Your task to perform on an android device: Is it going to rain tomorrow? Image 0: 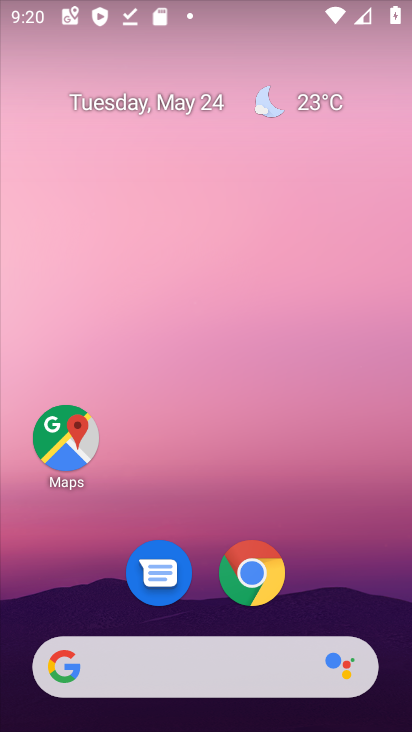
Step 0: drag from (397, 468) to (400, 549)
Your task to perform on an android device: Is it going to rain tomorrow? Image 1: 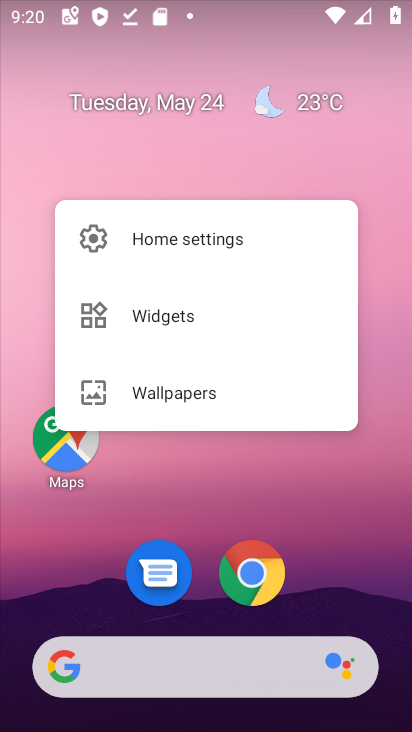
Step 1: press back button
Your task to perform on an android device: Is it going to rain tomorrow? Image 2: 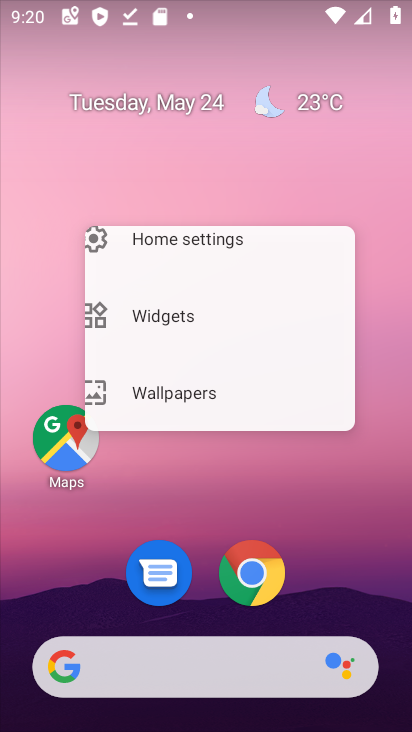
Step 2: press back button
Your task to perform on an android device: Is it going to rain tomorrow? Image 3: 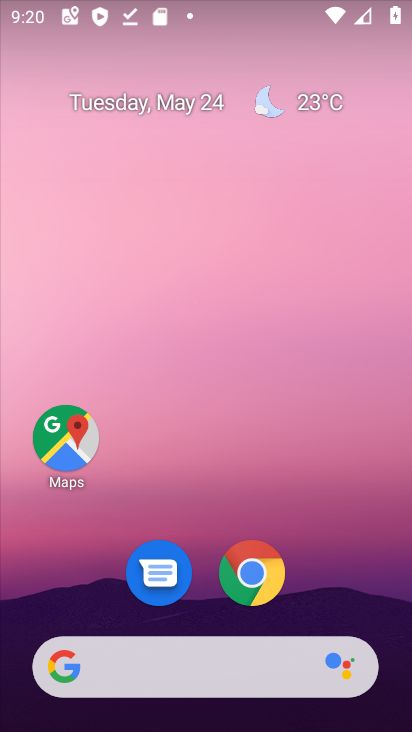
Step 3: press back button
Your task to perform on an android device: Is it going to rain tomorrow? Image 4: 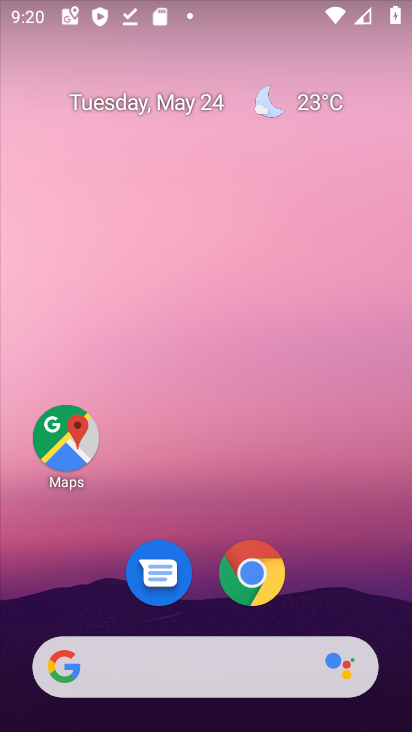
Step 4: drag from (7, 234) to (400, 481)
Your task to perform on an android device: Is it going to rain tomorrow? Image 5: 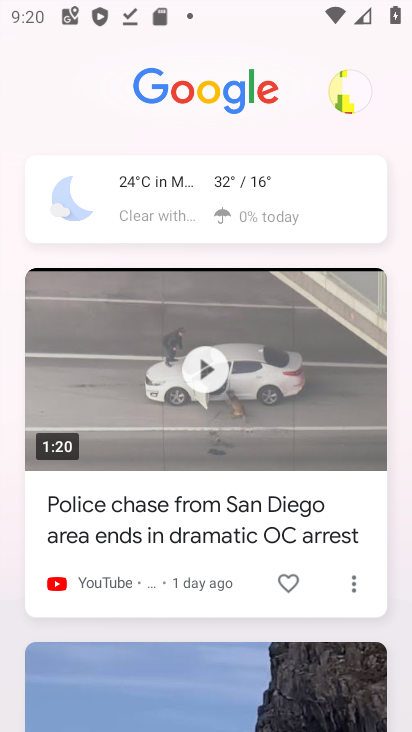
Step 5: click (162, 195)
Your task to perform on an android device: Is it going to rain tomorrow? Image 6: 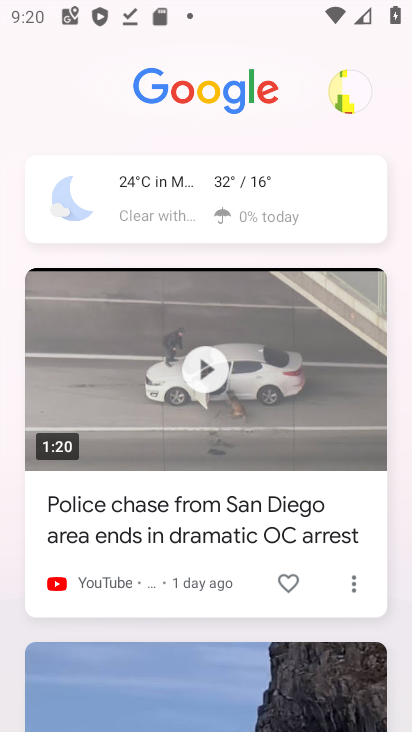
Step 6: click (165, 191)
Your task to perform on an android device: Is it going to rain tomorrow? Image 7: 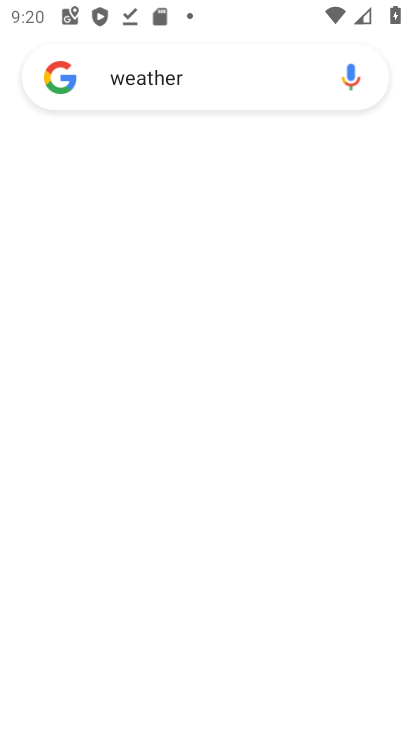
Step 7: click (168, 191)
Your task to perform on an android device: Is it going to rain tomorrow? Image 8: 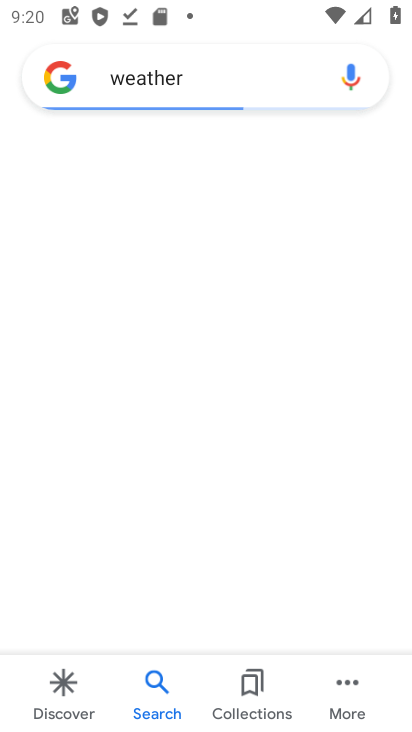
Step 8: click (169, 192)
Your task to perform on an android device: Is it going to rain tomorrow? Image 9: 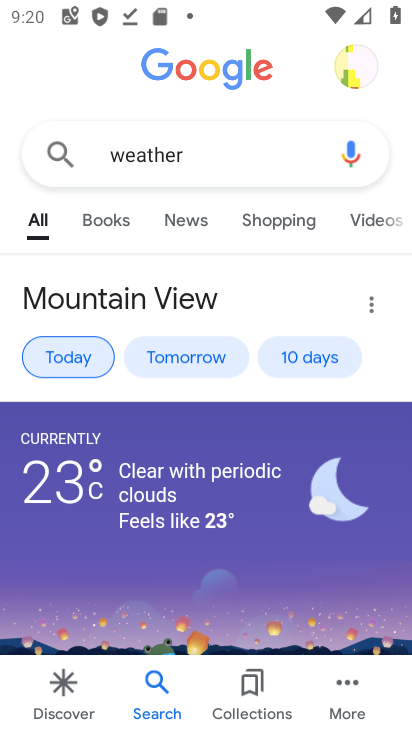
Step 9: click (188, 184)
Your task to perform on an android device: Is it going to rain tomorrow? Image 10: 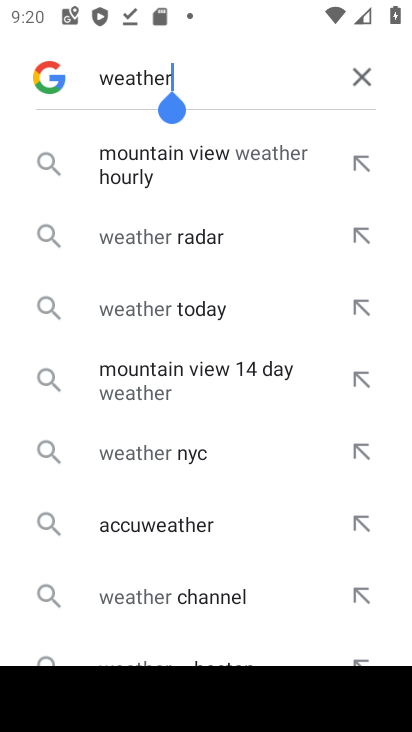
Step 10: task complete